Your task to perform on an android device: Open notification settings Image 0: 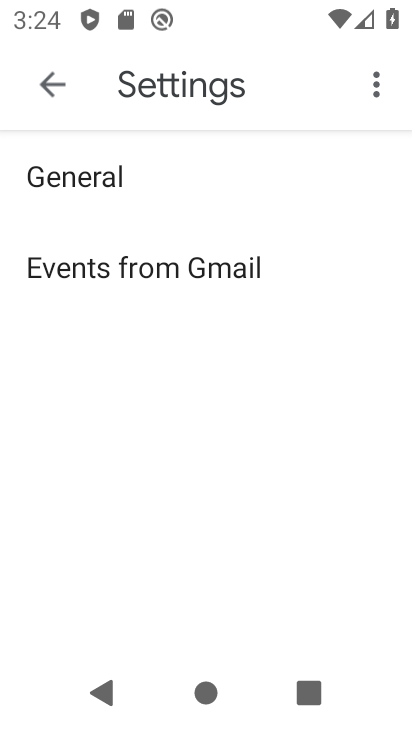
Step 0: press home button
Your task to perform on an android device: Open notification settings Image 1: 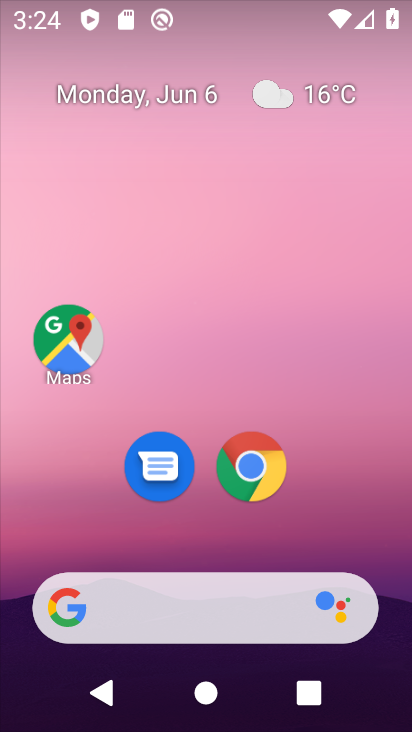
Step 1: drag from (204, 551) to (248, 0)
Your task to perform on an android device: Open notification settings Image 2: 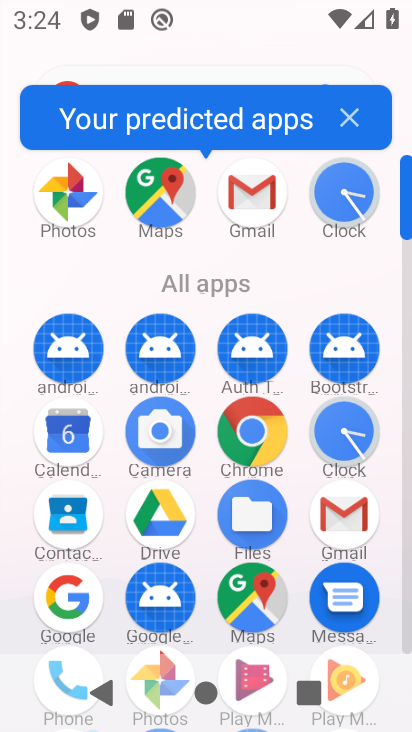
Step 2: drag from (208, 554) to (201, 230)
Your task to perform on an android device: Open notification settings Image 3: 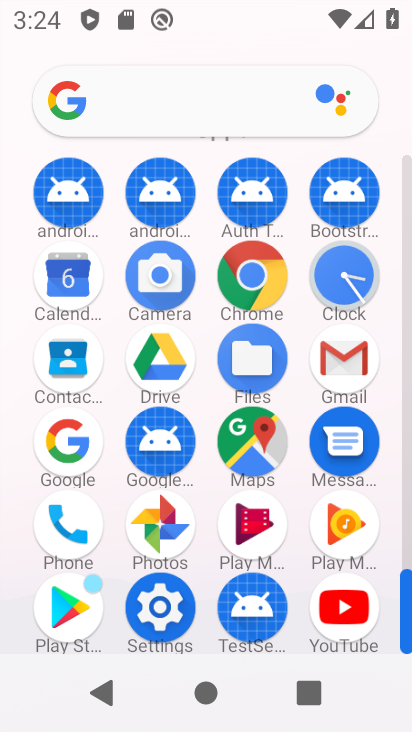
Step 3: click (161, 597)
Your task to perform on an android device: Open notification settings Image 4: 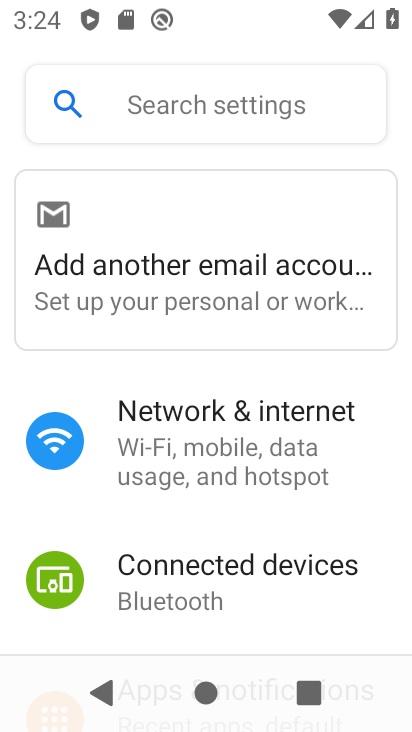
Step 4: drag from (238, 598) to (238, 342)
Your task to perform on an android device: Open notification settings Image 5: 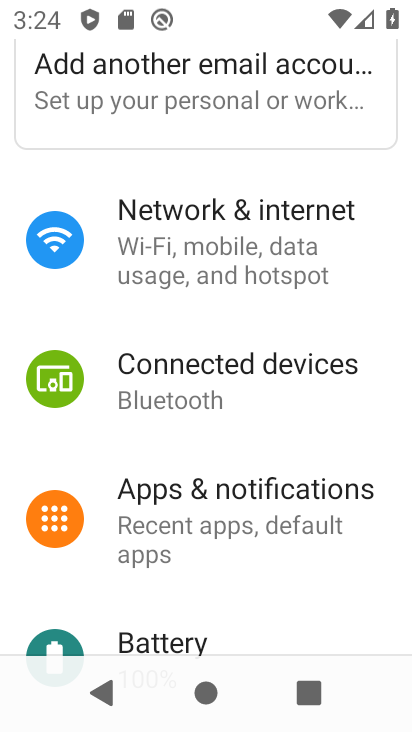
Step 5: drag from (238, 297) to (239, 251)
Your task to perform on an android device: Open notification settings Image 6: 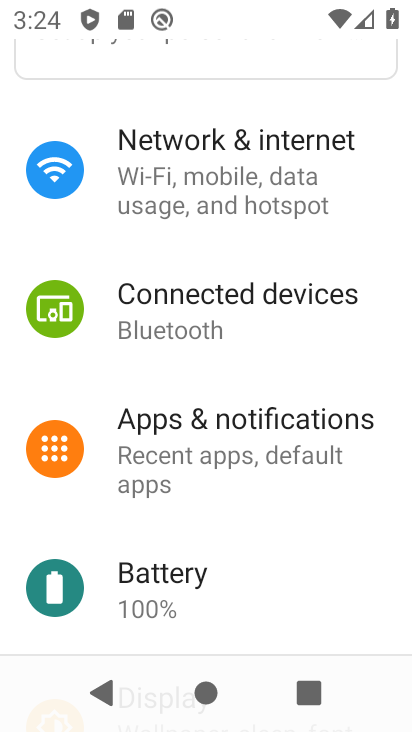
Step 6: click (353, 434)
Your task to perform on an android device: Open notification settings Image 7: 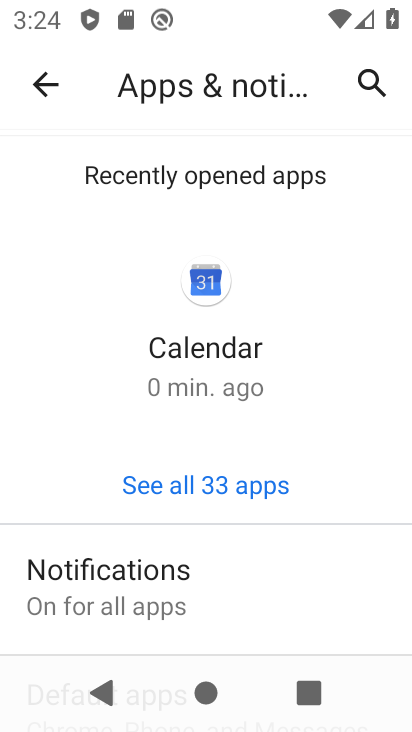
Step 7: click (210, 587)
Your task to perform on an android device: Open notification settings Image 8: 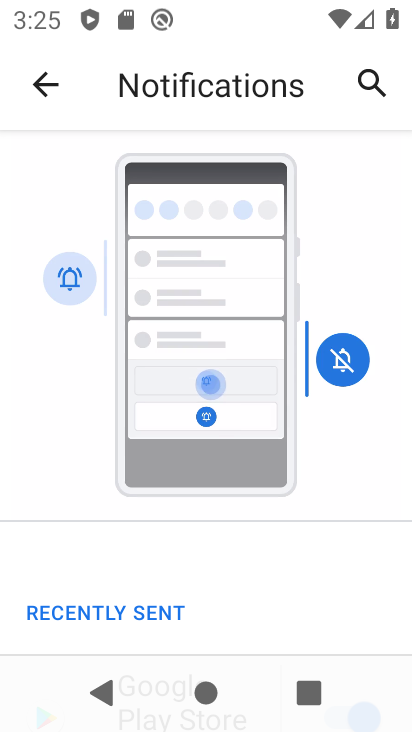
Step 8: drag from (228, 599) to (242, 197)
Your task to perform on an android device: Open notification settings Image 9: 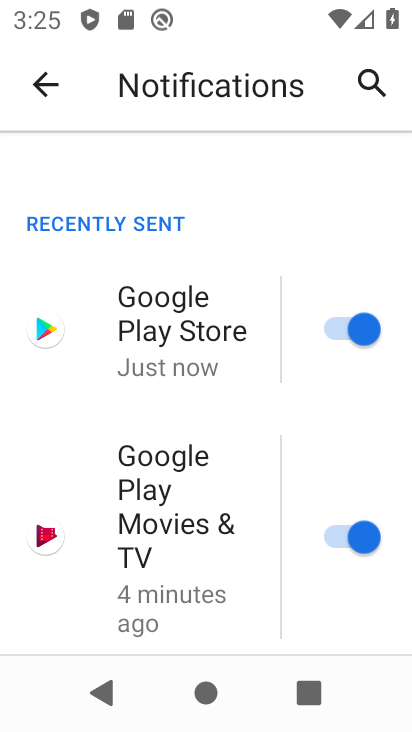
Step 9: drag from (231, 598) to (255, 86)
Your task to perform on an android device: Open notification settings Image 10: 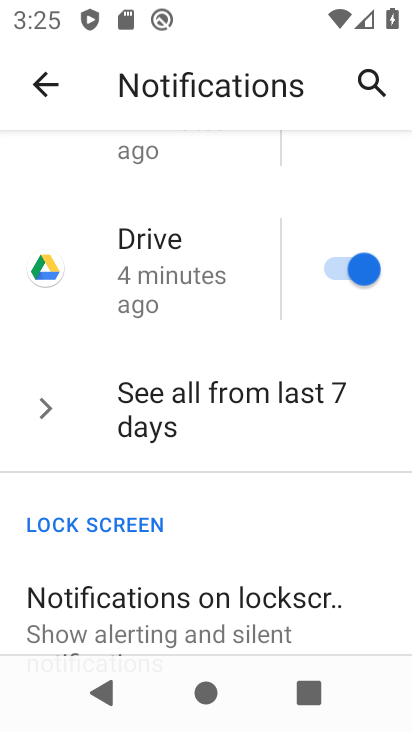
Step 10: drag from (234, 601) to (232, 202)
Your task to perform on an android device: Open notification settings Image 11: 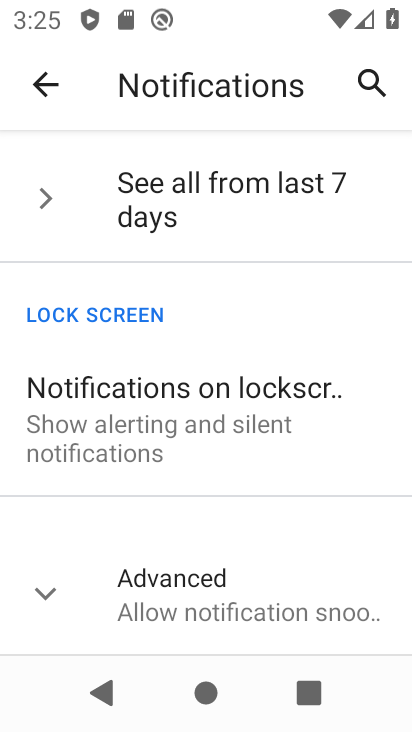
Step 11: click (54, 592)
Your task to perform on an android device: Open notification settings Image 12: 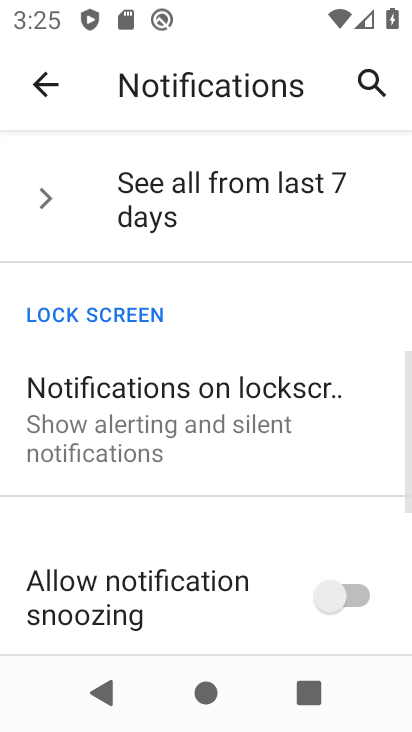
Step 12: drag from (204, 621) to (241, 244)
Your task to perform on an android device: Open notification settings Image 13: 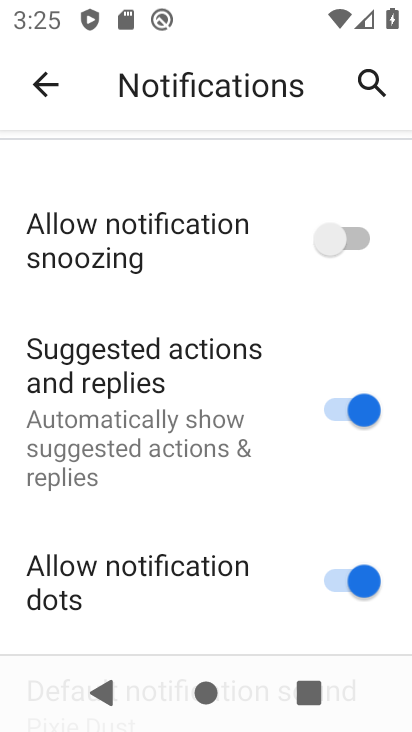
Step 13: click (207, 569)
Your task to perform on an android device: Open notification settings Image 14: 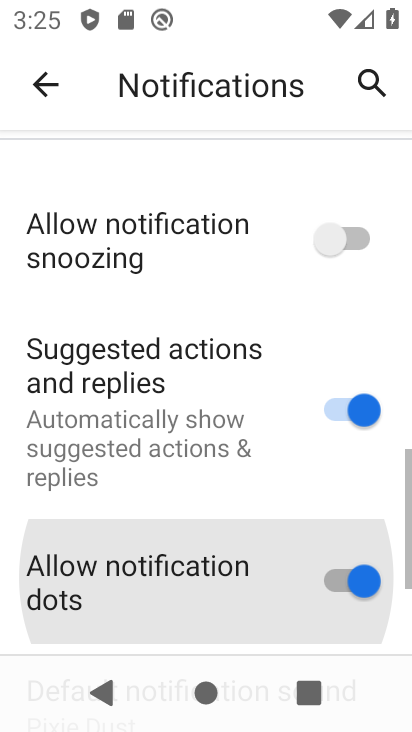
Step 14: task complete